Your task to perform on an android device: check android version Image 0: 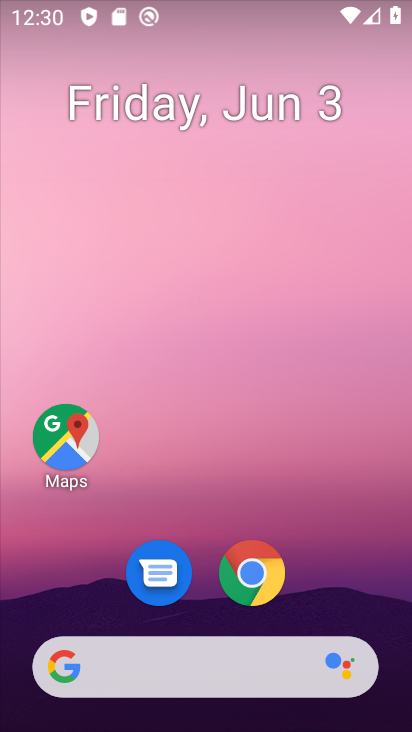
Step 0: task complete